Your task to perform on an android device: Open Yahoo.com Image 0: 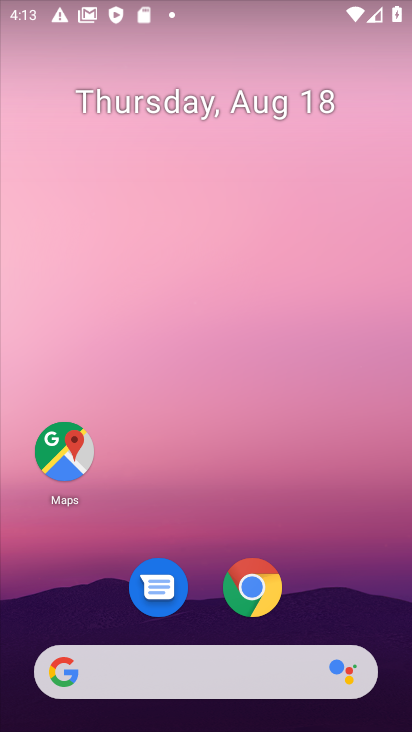
Step 0: drag from (351, 573) to (410, 472)
Your task to perform on an android device: Open Yahoo.com Image 1: 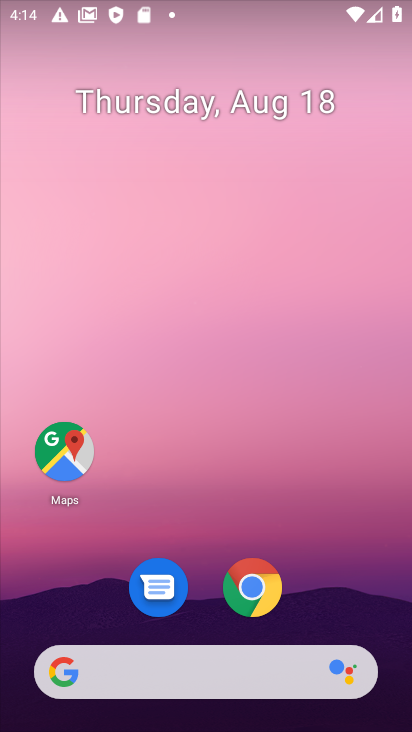
Step 1: drag from (314, 569) to (410, 577)
Your task to perform on an android device: Open Yahoo.com Image 2: 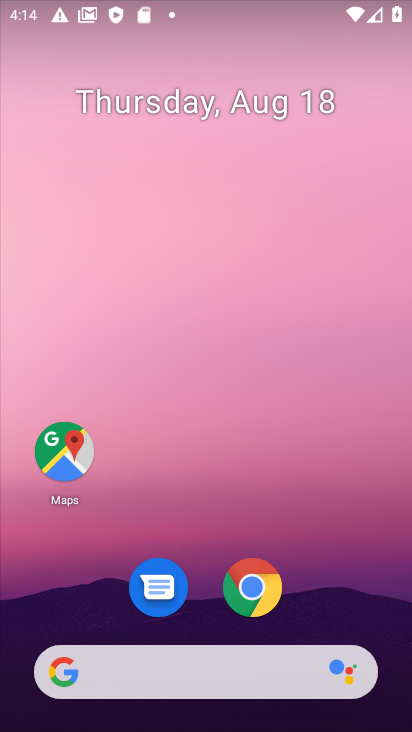
Step 2: drag from (293, 438) to (367, 18)
Your task to perform on an android device: Open Yahoo.com Image 3: 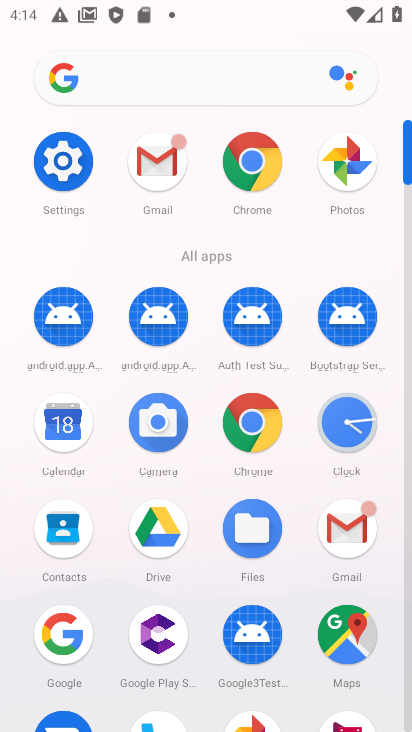
Step 3: click (244, 419)
Your task to perform on an android device: Open Yahoo.com Image 4: 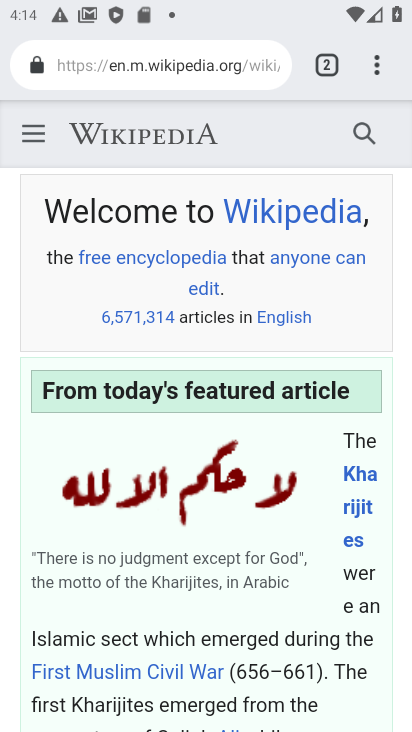
Step 4: click (207, 61)
Your task to perform on an android device: Open Yahoo.com Image 5: 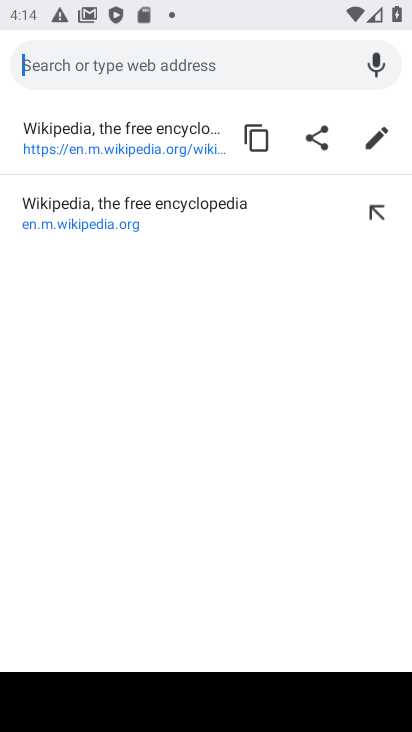
Step 5: type " Yahoo.com"
Your task to perform on an android device: Open Yahoo.com Image 6: 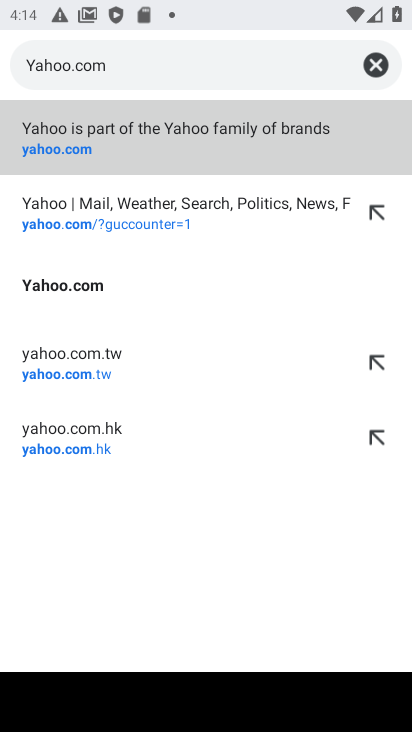
Step 6: click (56, 141)
Your task to perform on an android device: Open Yahoo.com Image 7: 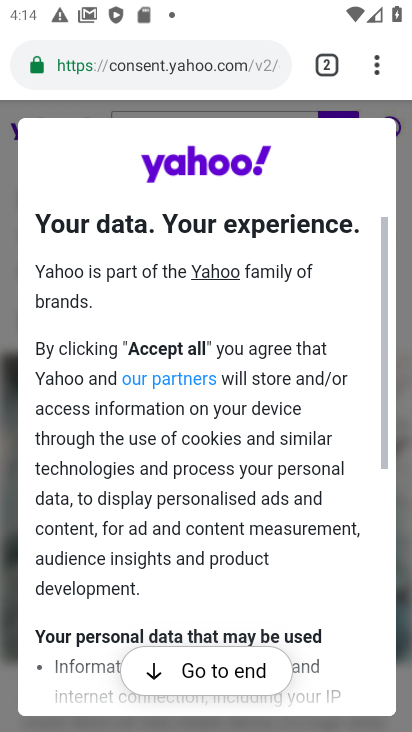
Step 7: task complete